Your task to perform on an android device: choose inbox layout in the gmail app Image 0: 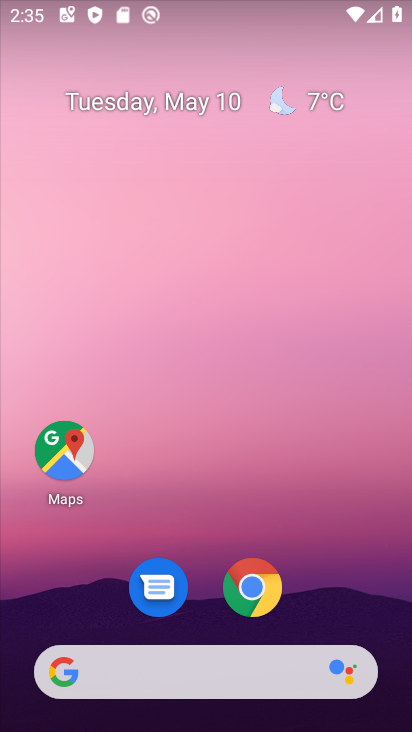
Step 0: drag from (328, 539) to (265, 1)
Your task to perform on an android device: choose inbox layout in the gmail app Image 1: 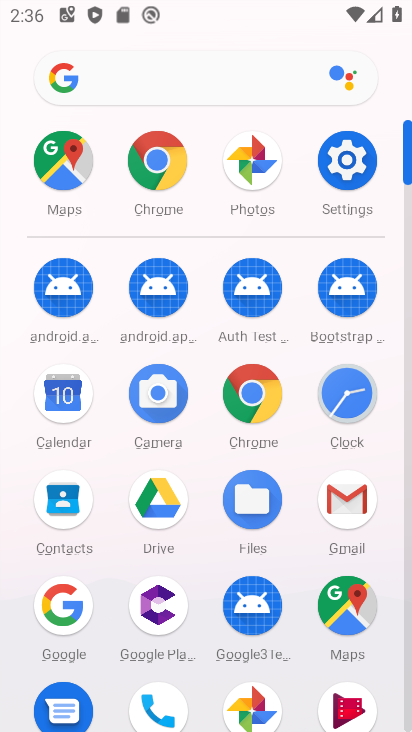
Step 1: click (340, 496)
Your task to perform on an android device: choose inbox layout in the gmail app Image 2: 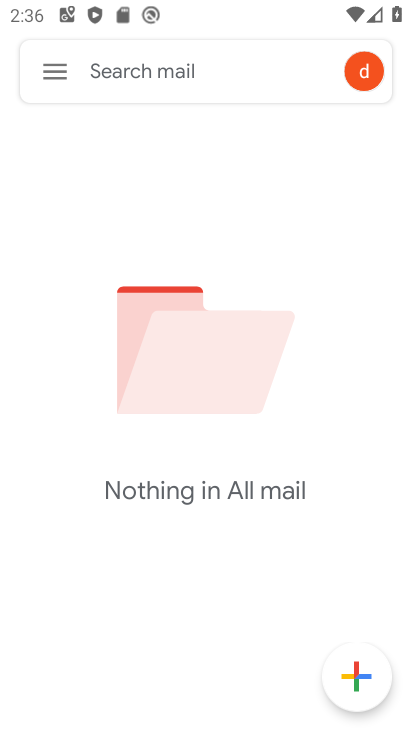
Step 2: click (55, 74)
Your task to perform on an android device: choose inbox layout in the gmail app Image 3: 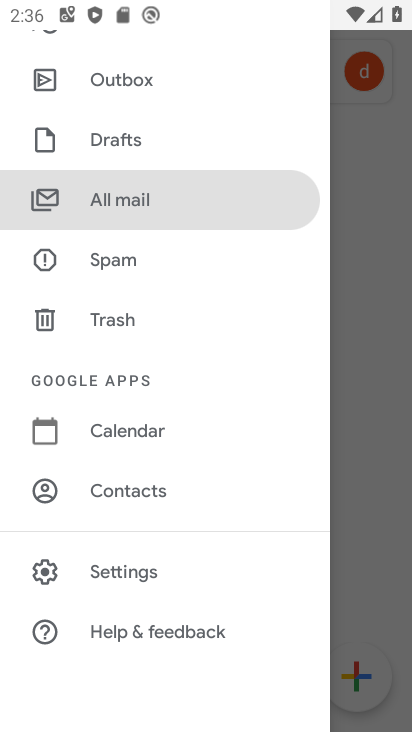
Step 3: click (143, 564)
Your task to perform on an android device: choose inbox layout in the gmail app Image 4: 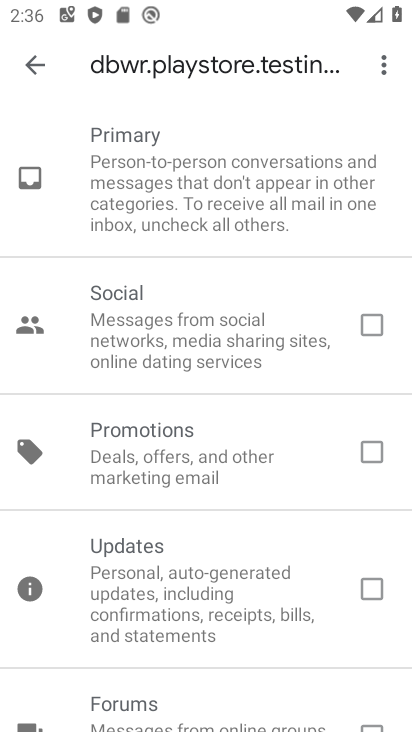
Step 4: click (369, 321)
Your task to perform on an android device: choose inbox layout in the gmail app Image 5: 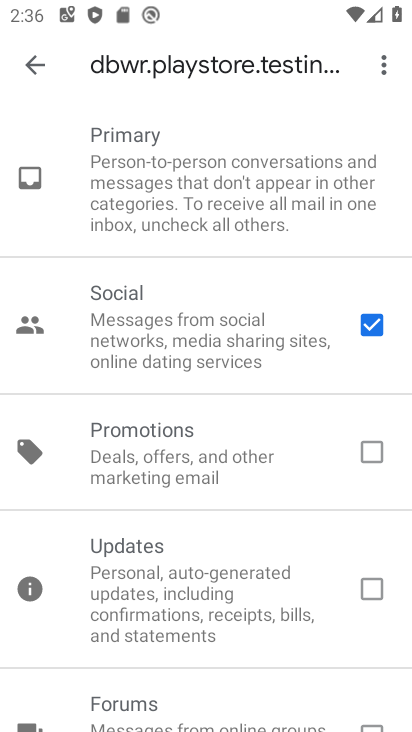
Step 5: click (369, 453)
Your task to perform on an android device: choose inbox layout in the gmail app Image 6: 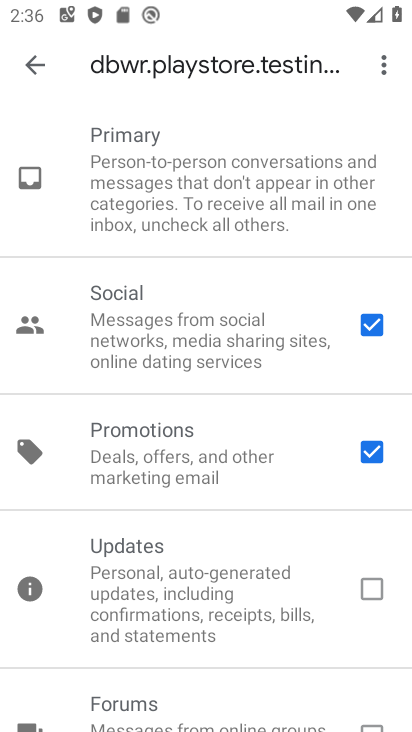
Step 6: task complete